Your task to perform on an android device: turn on location history Image 0: 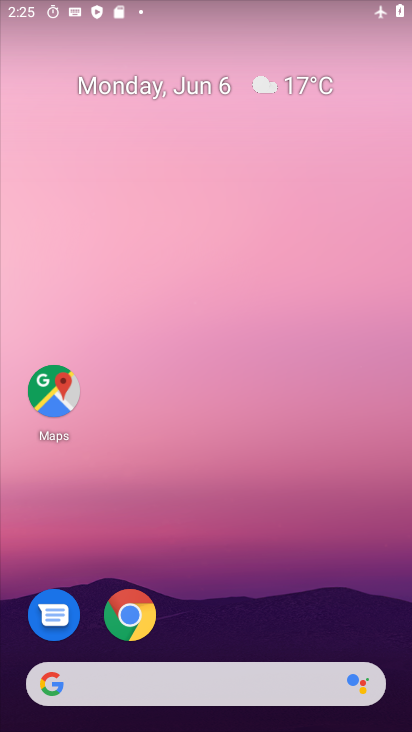
Step 0: drag from (212, 644) to (271, 157)
Your task to perform on an android device: turn on location history Image 1: 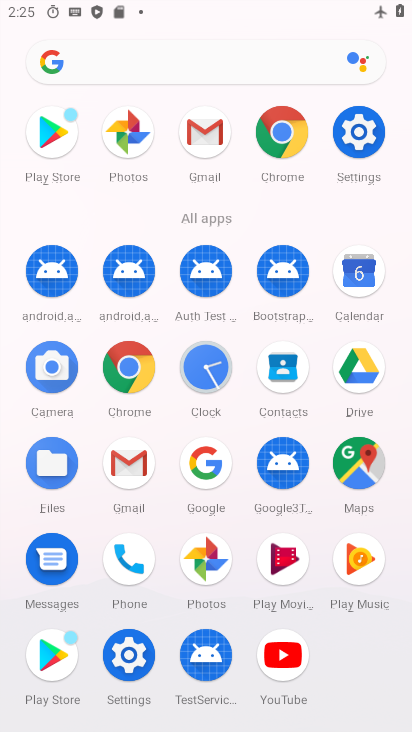
Step 1: click (358, 141)
Your task to perform on an android device: turn on location history Image 2: 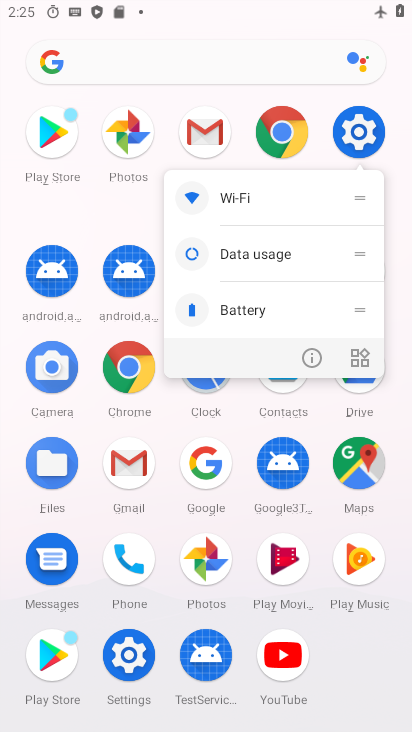
Step 2: click (365, 126)
Your task to perform on an android device: turn on location history Image 3: 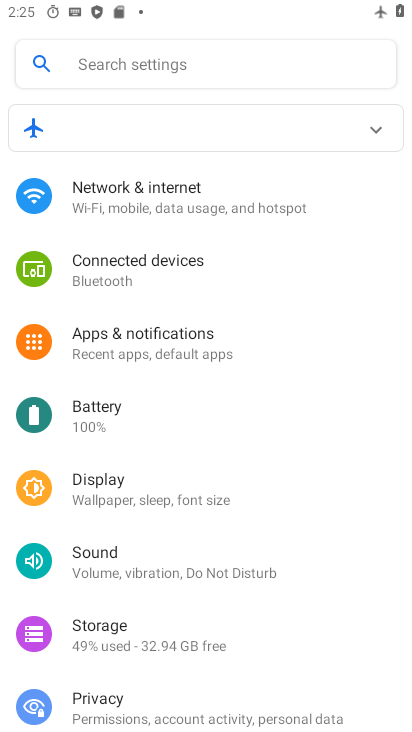
Step 3: drag from (176, 559) to (232, 287)
Your task to perform on an android device: turn on location history Image 4: 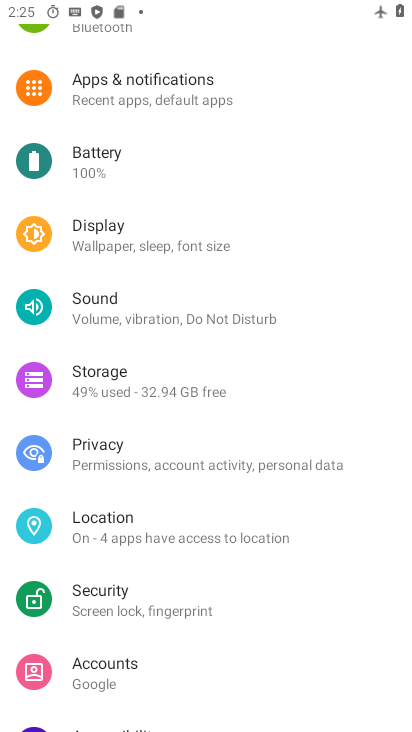
Step 4: click (198, 527)
Your task to perform on an android device: turn on location history Image 5: 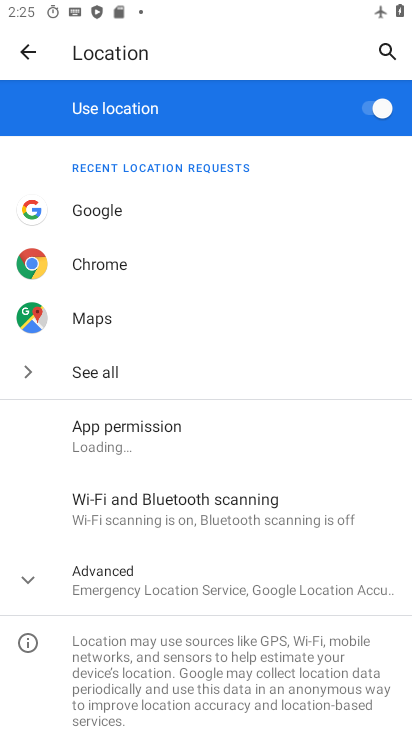
Step 5: click (177, 582)
Your task to perform on an android device: turn on location history Image 6: 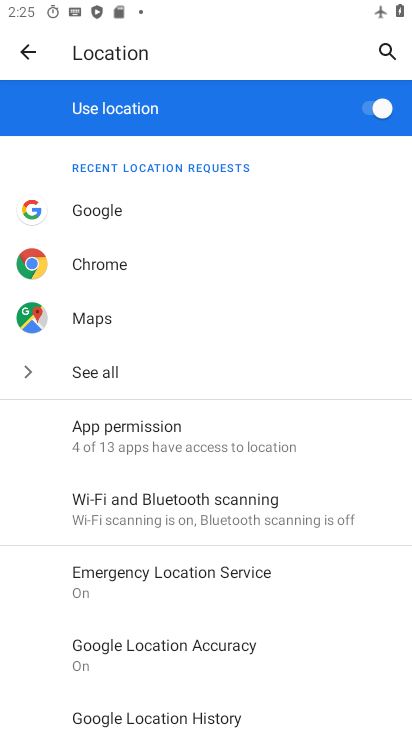
Step 6: drag from (230, 664) to (265, 453)
Your task to perform on an android device: turn on location history Image 7: 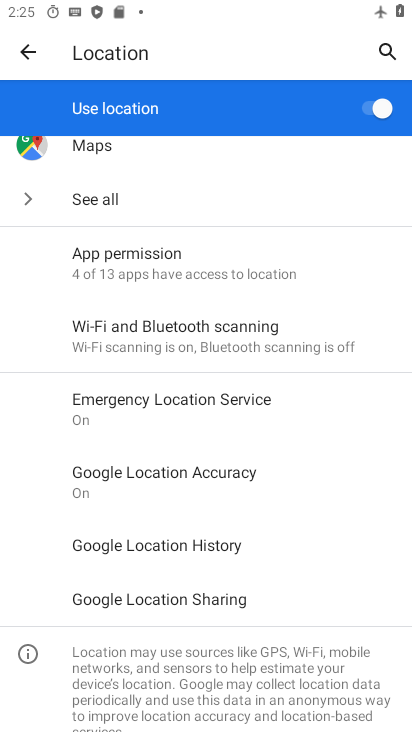
Step 7: click (177, 557)
Your task to perform on an android device: turn on location history Image 8: 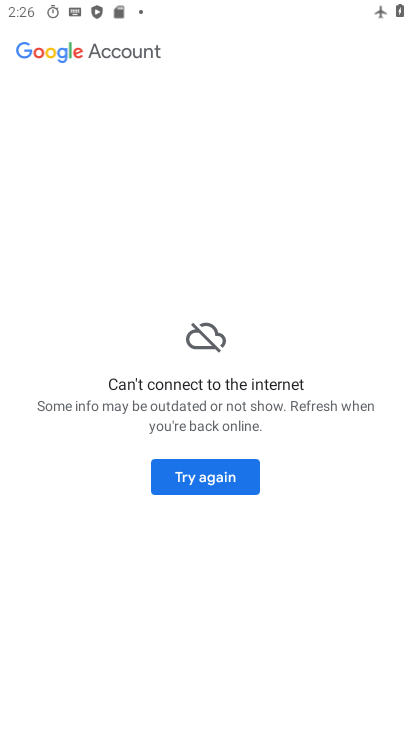
Step 8: click (210, 484)
Your task to perform on an android device: turn on location history Image 9: 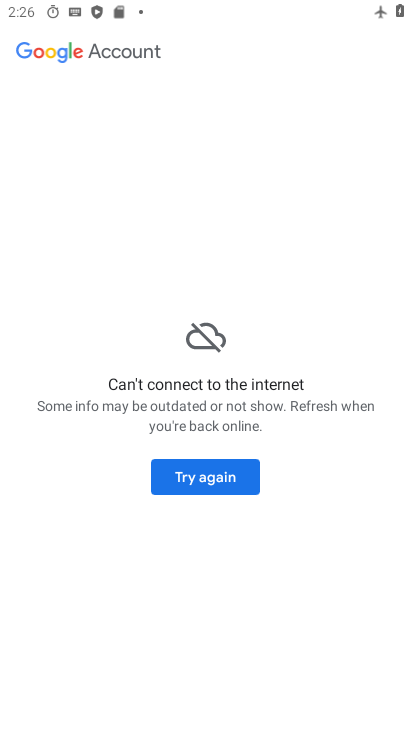
Step 9: task complete